Your task to perform on an android device: What is the recent news? Image 0: 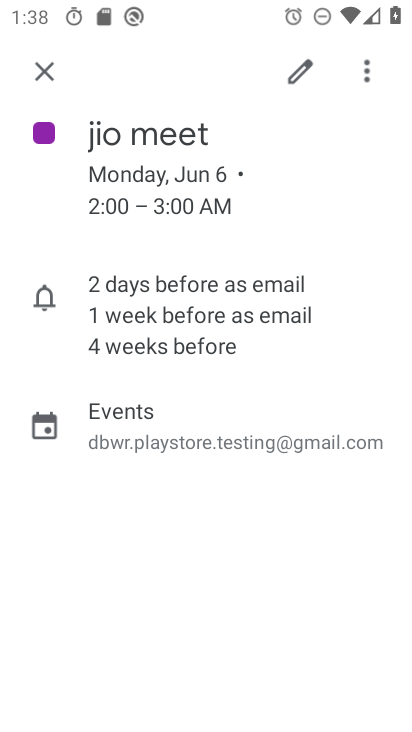
Step 0: press home button
Your task to perform on an android device: What is the recent news? Image 1: 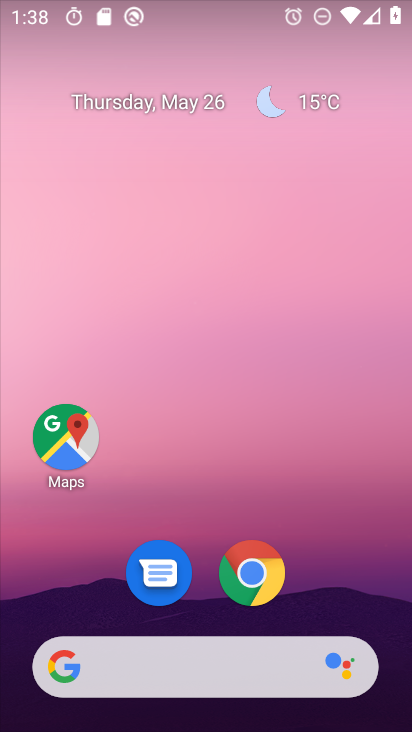
Step 1: click (115, 672)
Your task to perform on an android device: What is the recent news? Image 2: 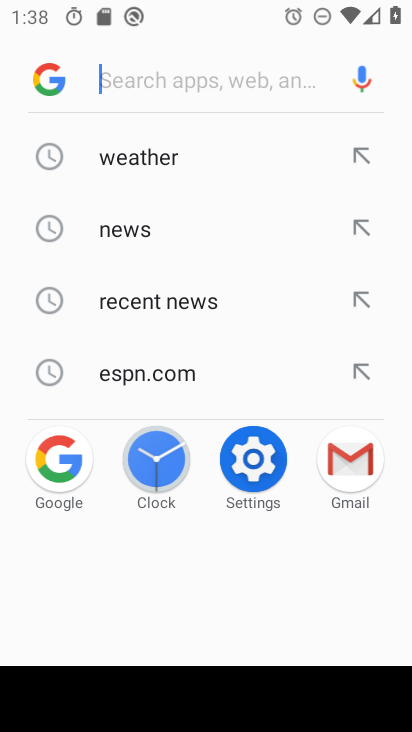
Step 2: click (145, 309)
Your task to perform on an android device: What is the recent news? Image 3: 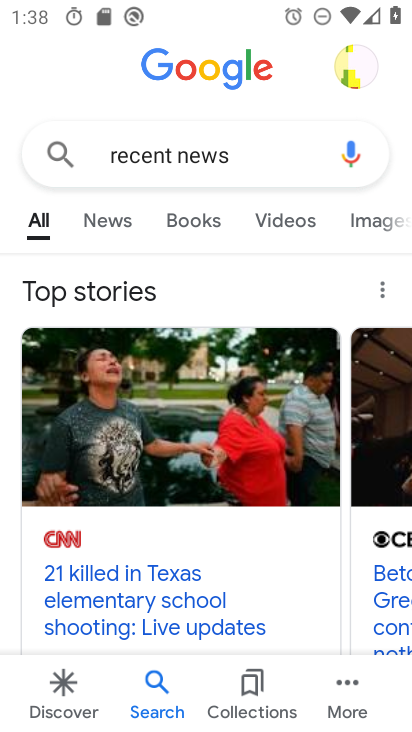
Step 3: drag from (152, 601) to (144, 303)
Your task to perform on an android device: What is the recent news? Image 4: 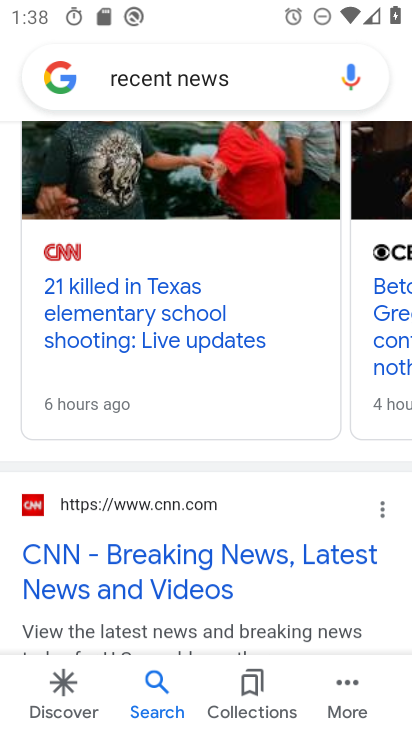
Step 4: drag from (291, 321) to (138, 323)
Your task to perform on an android device: What is the recent news? Image 5: 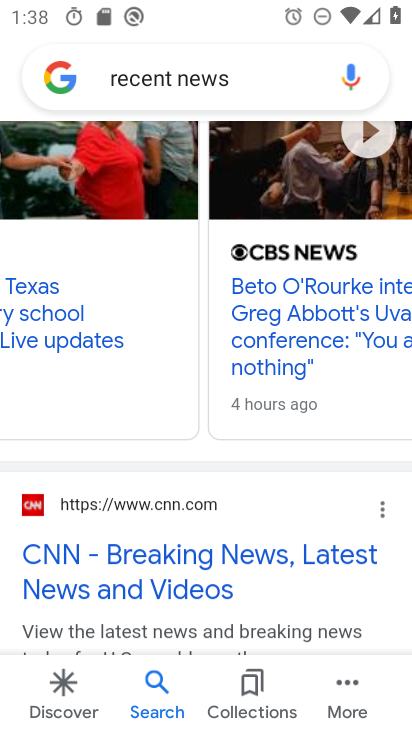
Step 5: drag from (173, 532) to (190, 245)
Your task to perform on an android device: What is the recent news? Image 6: 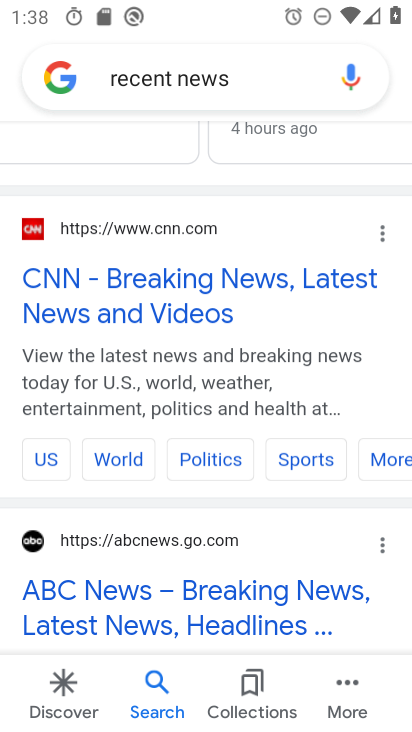
Step 6: drag from (191, 240) to (183, 507)
Your task to perform on an android device: What is the recent news? Image 7: 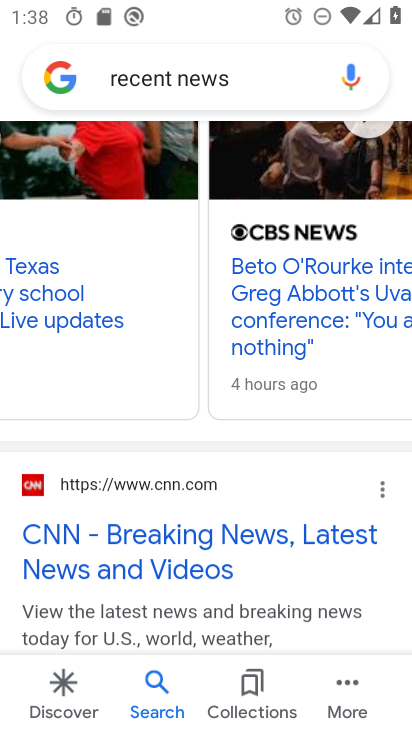
Step 7: drag from (305, 312) to (25, 342)
Your task to perform on an android device: What is the recent news? Image 8: 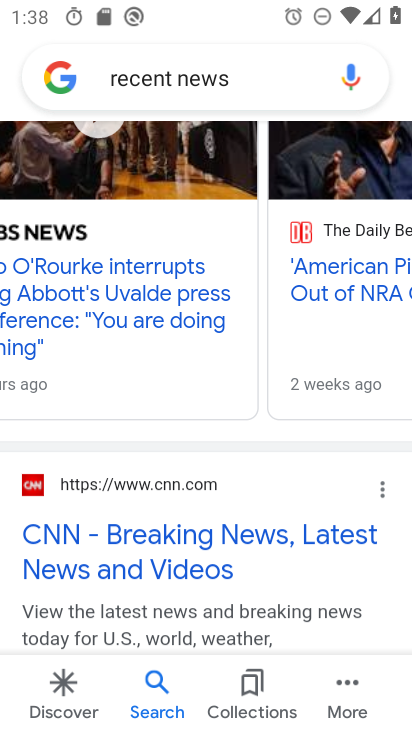
Step 8: click (59, 230)
Your task to perform on an android device: What is the recent news? Image 9: 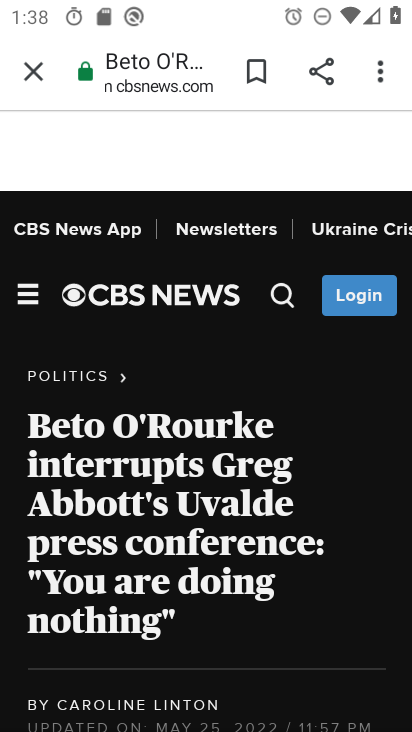
Step 9: task complete